Your task to perform on an android device: turn on showing notifications on the lock screen Image 0: 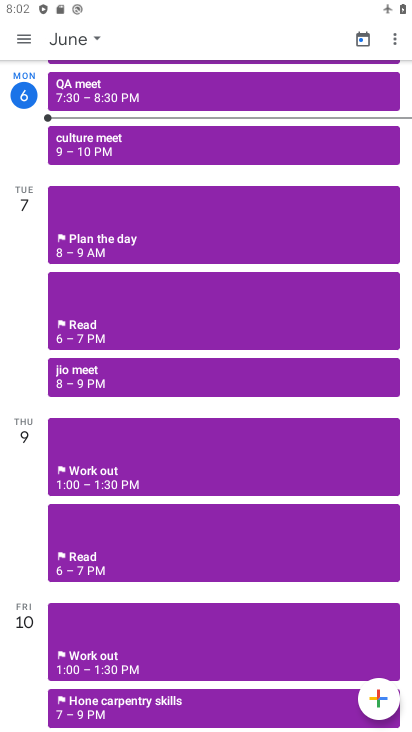
Step 0: press home button
Your task to perform on an android device: turn on showing notifications on the lock screen Image 1: 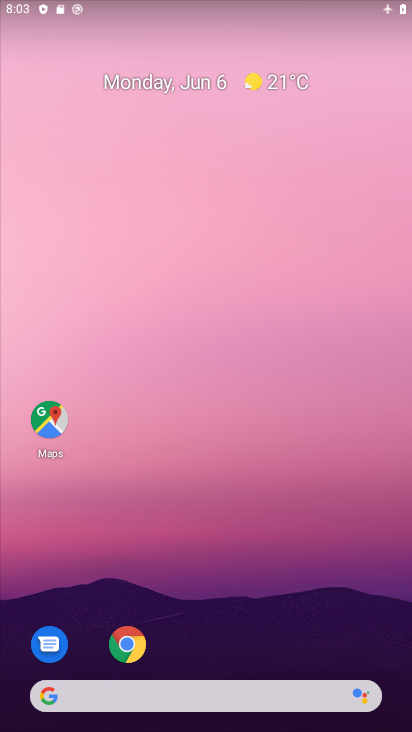
Step 1: drag from (189, 680) to (236, 61)
Your task to perform on an android device: turn on showing notifications on the lock screen Image 2: 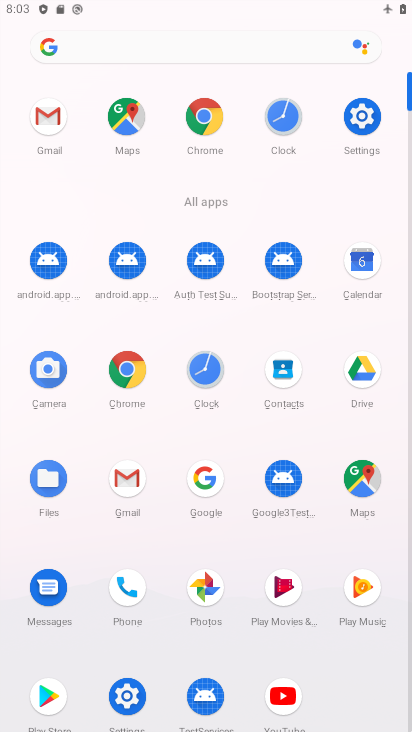
Step 2: click (359, 118)
Your task to perform on an android device: turn on showing notifications on the lock screen Image 3: 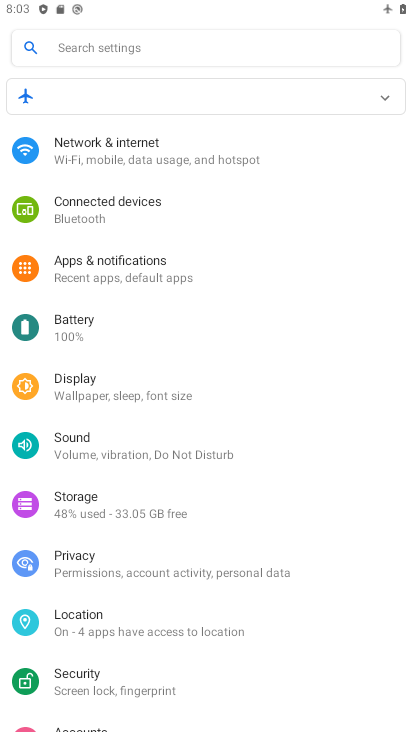
Step 3: click (123, 271)
Your task to perform on an android device: turn on showing notifications on the lock screen Image 4: 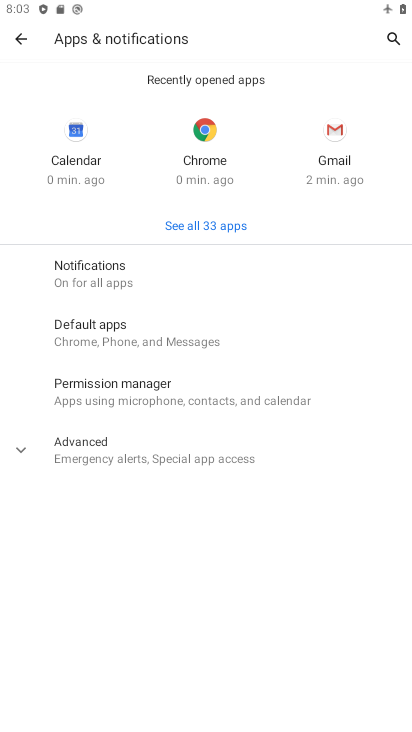
Step 4: click (119, 280)
Your task to perform on an android device: turn on showing notifications on the lock screen Image 5: 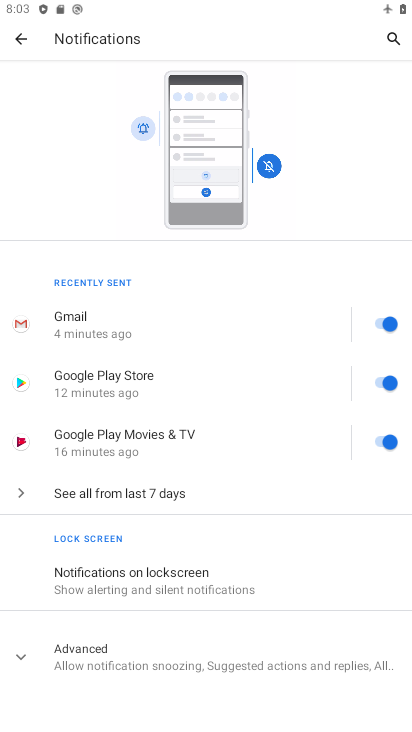
Step 5: click (181, 590)
Your task to perform on an android device: turn on showing notifications on the lock screen Image 6: 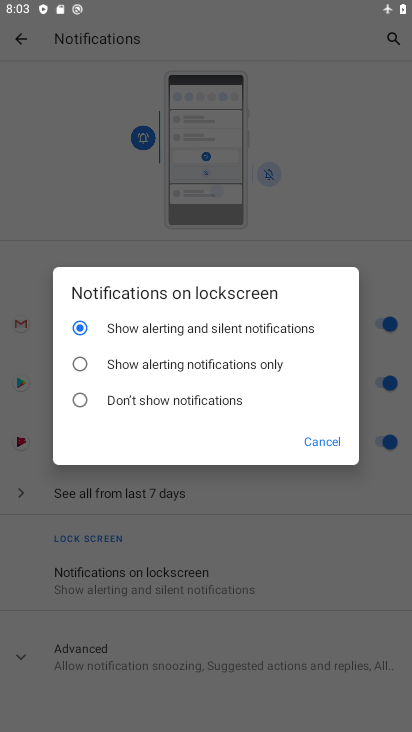
Step 6: click (205, 337)
Your task to perform on an android device: turn on showing notifications on the lock screen Image 7: 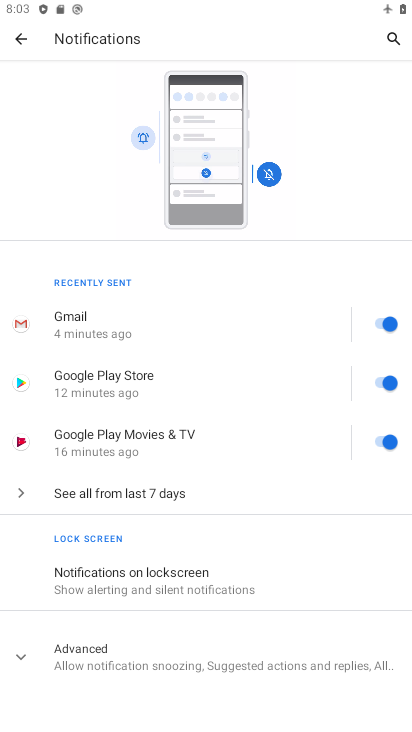
Step 7: task complete